Your task to perform on an android device: open device folders in google photos Image 0: 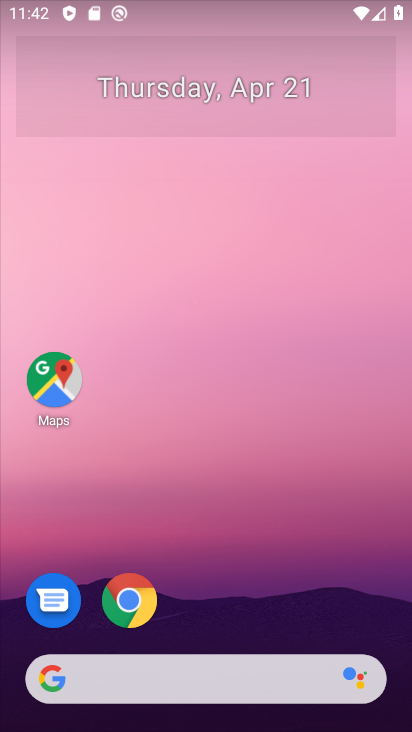
Step 0: drag from (218, 533) to (275, 138)
Your task to perform on an android device: open device folders in google photos Image 1: 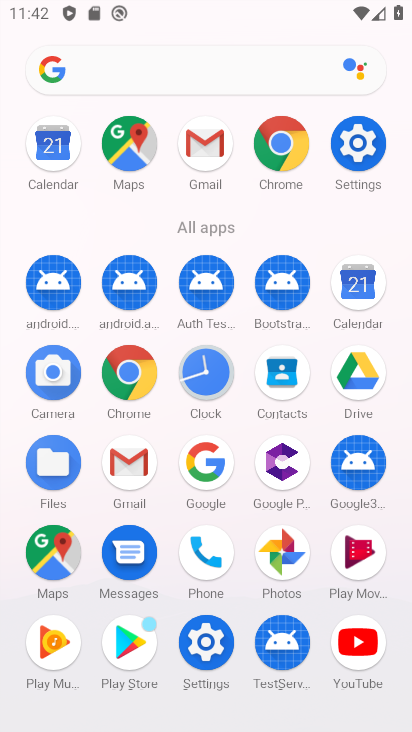
Step 1: click (289, 565)
Your task to perform on an android device: open device folders in google photos Image 2: 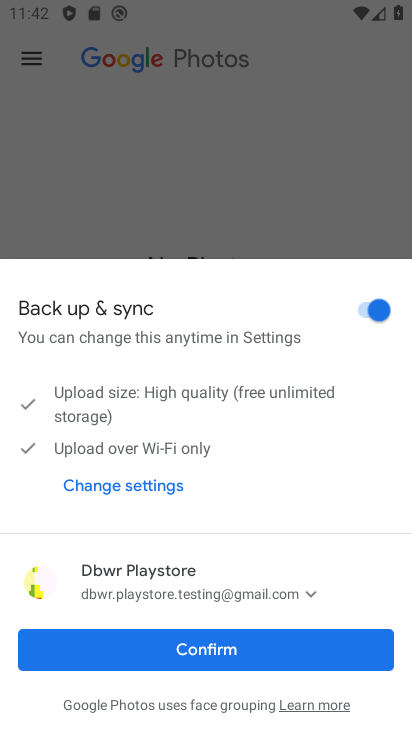
Step 2: click (255, 651)
Your task to perform on an android device: open device folders in google photos Image 3: 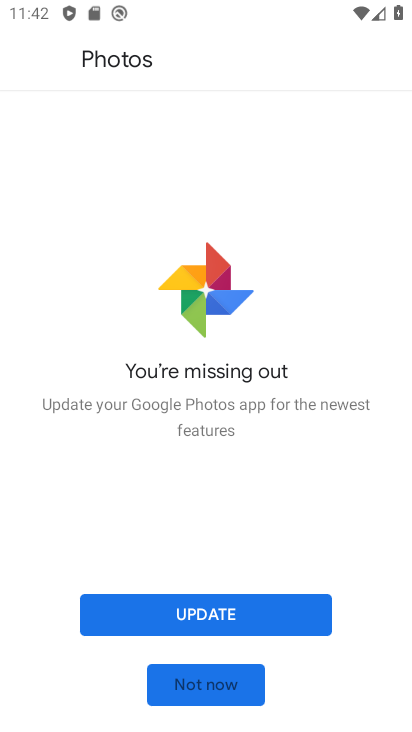
Step 3: click (210, 694)
Your task to perform on an android device: open device folders in google photos Image 4: 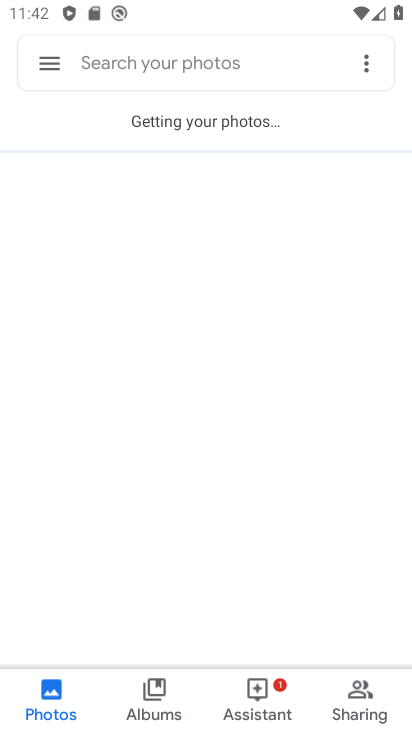
Step 4: click (55, 68)
Your task to perform on an android device: open device folders in google photos Image 5: 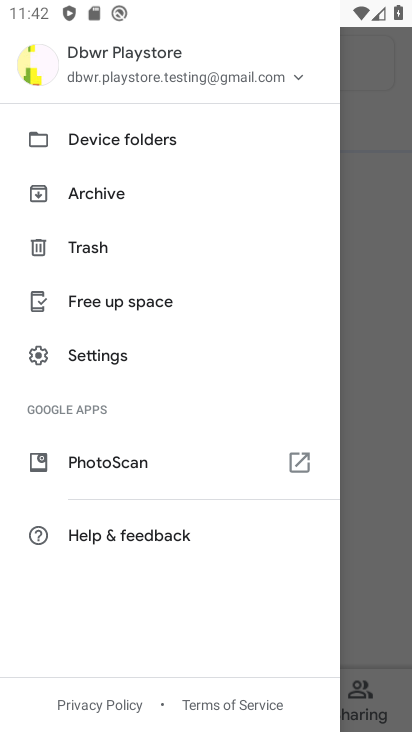
Step 5: click (142, 132)
Your task to perform on an android device: open device folders in google photos Image 6: 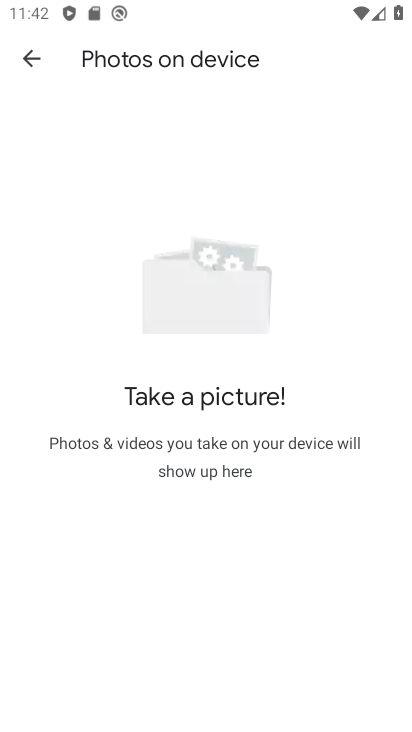
Step 6: task complete